Your task to perform on an android device: open device folders in google photos Image 0: 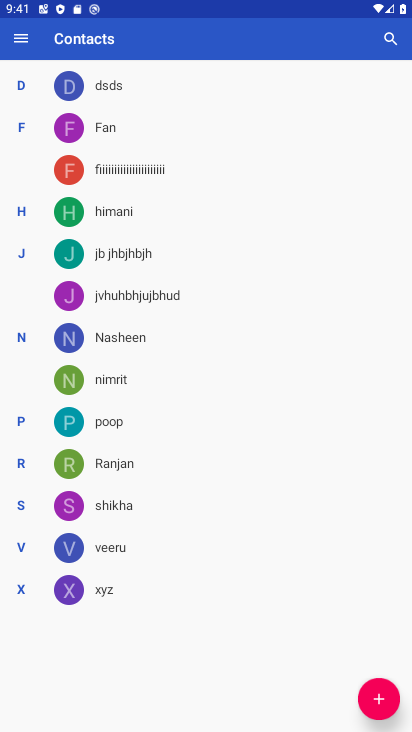
Step 0: press back button
Your task to perform on an android device: open device folders in google photos Image 1: 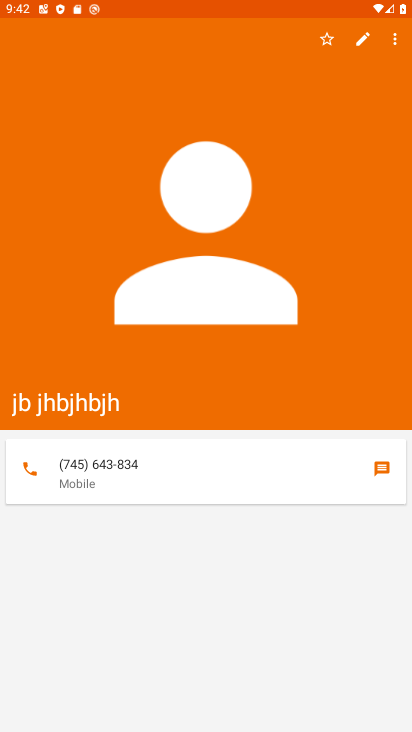
Step 1: press home button
Your task to perform on an android device: open device folders in google photos Image 2: 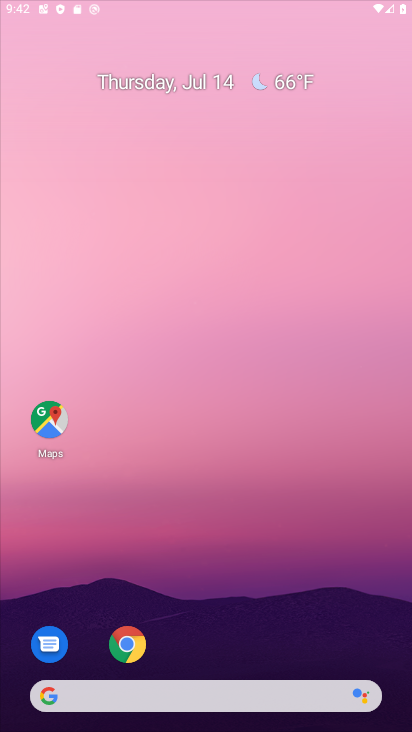
Step 2: press back button
Your task to perform on an android device: open device folders in google photos Image 3: 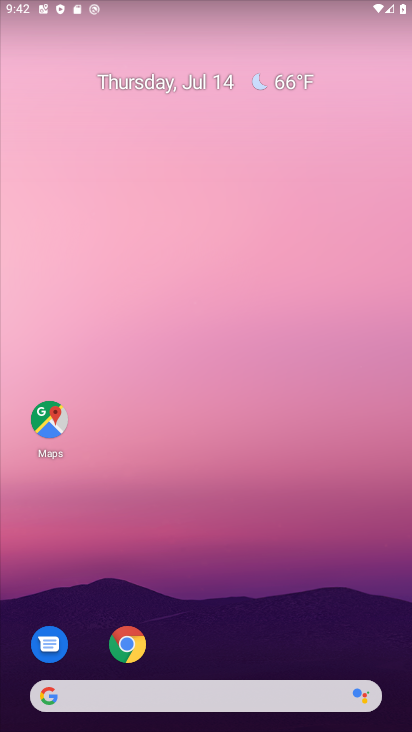
Step 3: drag from (238, 656) to (148, 72)
Your task to perform on an android device: open device folders in google photos Image 4: 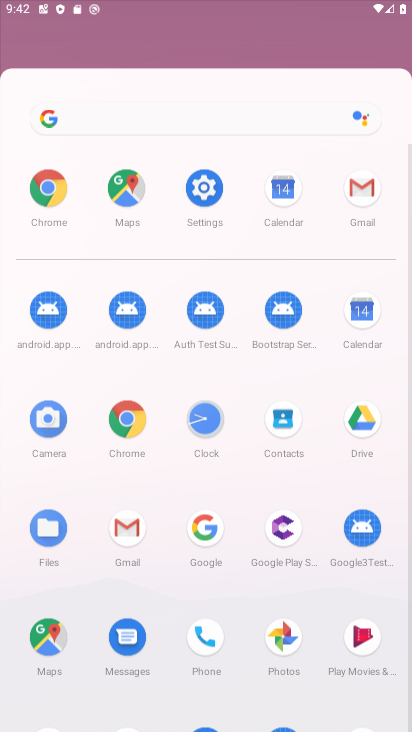
Step 4: drag from (217, 465) to (183, 185)
Your task to perform on an android device: open device folders in google photos Image 5: 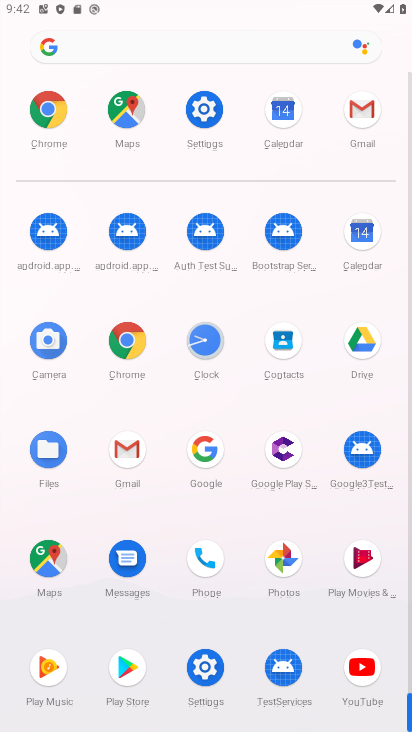
Step 5: click (271, 560)
Your task to perform on an android device: open device folders in google photos Image 6: 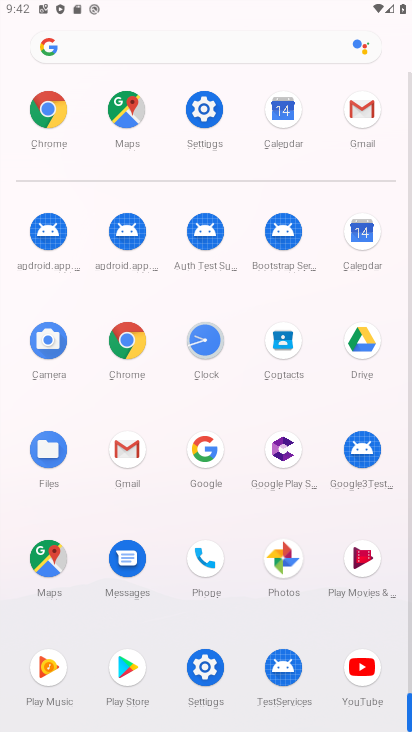
Step 6: click (274, 543)
Your task to perform on an android device: open device folders in google photos Image 7: 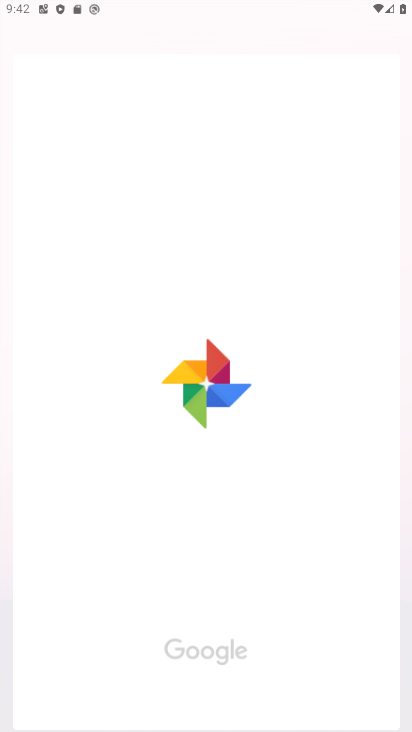
Step 7: click (281, 561)
Your task to perform on an android device: open device folders in google photos Image 8: 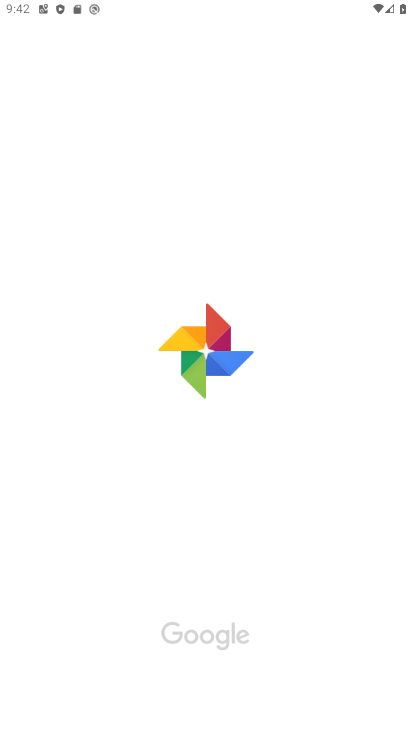
Step 8: click (283, 561)
Your task to perform on an android device: open device folders in google photos Image 9: 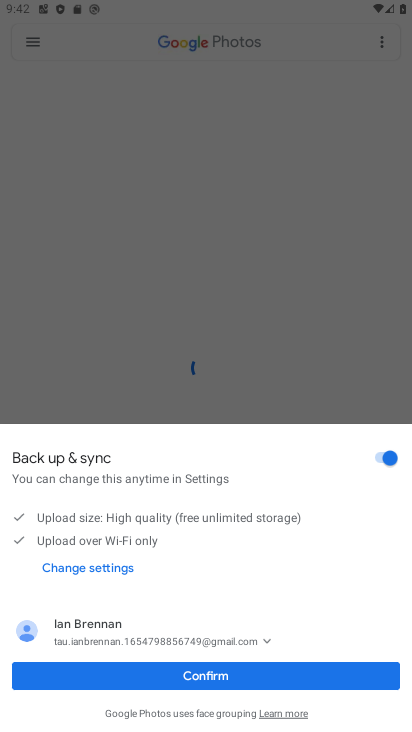
Step 9: click (216, 675)
Your task to perform on an android device: open device folders in google photos Image 10: 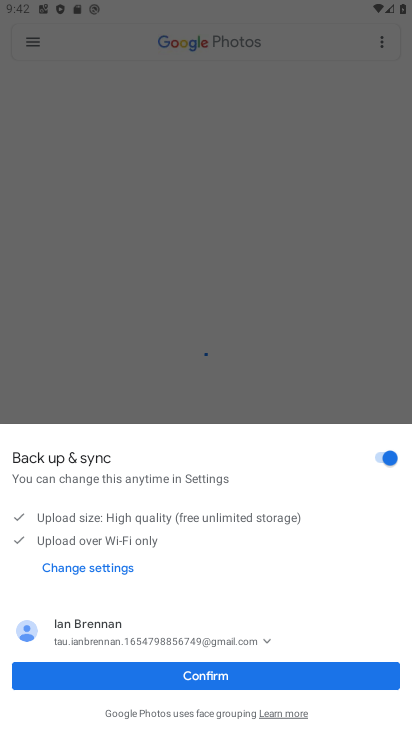
Step 10: click (214, 676)
Your task to perform on an android device: open device folders in google photos Image 11: 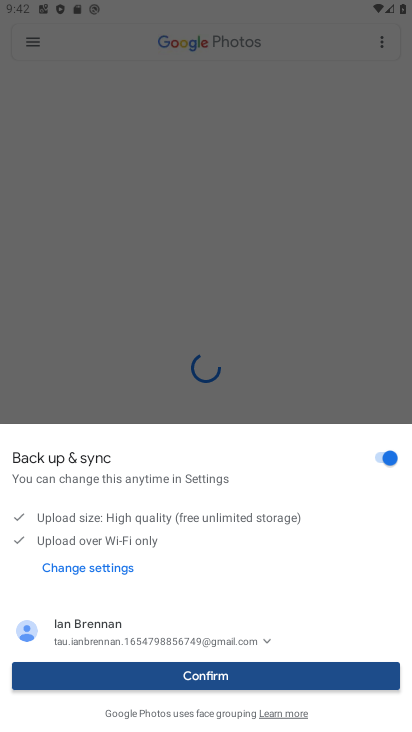
Step 11: click (215, 676)
Your task to perform on an android device: open device folders in google photos Image 12: 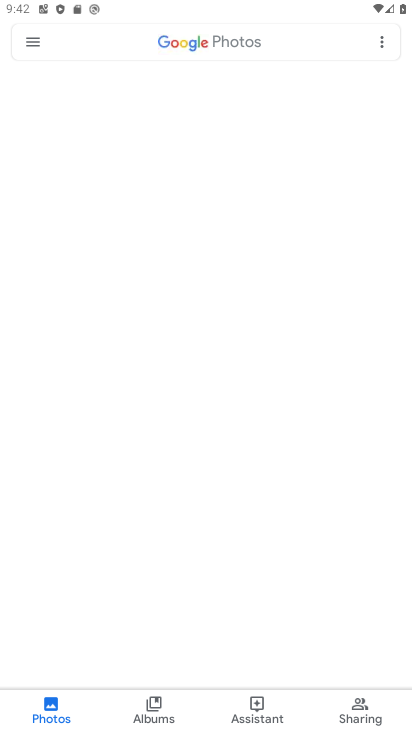
Step 12: click (233, 679)
Your task to perform on an android device: open device folders in google photos Image 13: 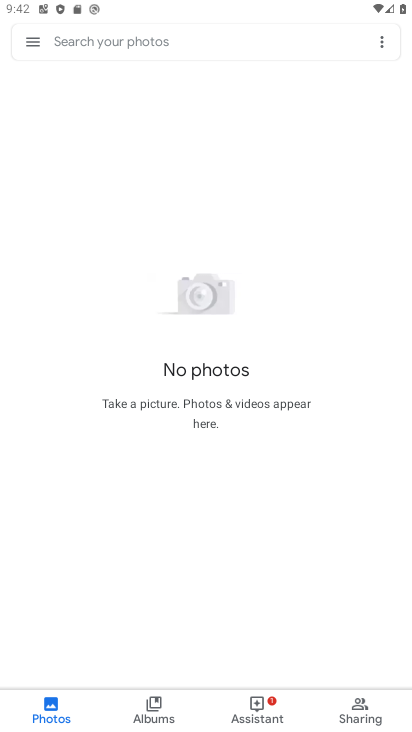
Step 13: click (27, 34)
Your task to perform on an android device: open device folders in google photos Image 14: 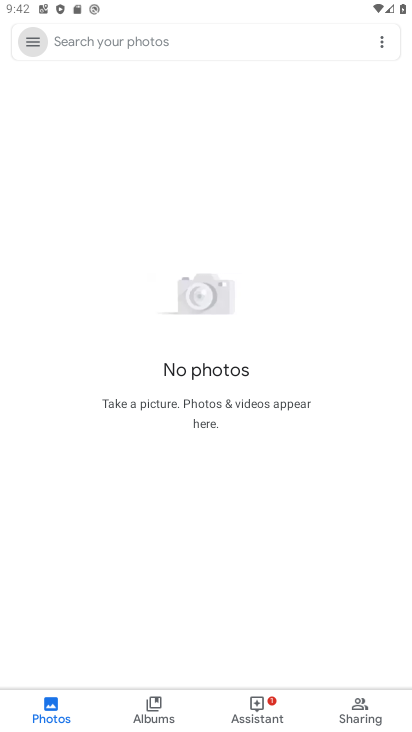
Step 14: click (32, 44)
Your task to perform on an android device: open device folders in google photos Image 15: 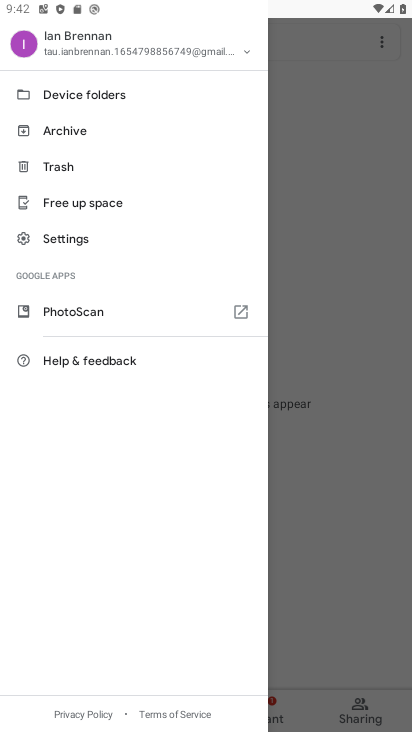
Step 15: drag from (33, 45) to (397, 149)
Your task to perform on an android device: open device folders in google photos Image 16: 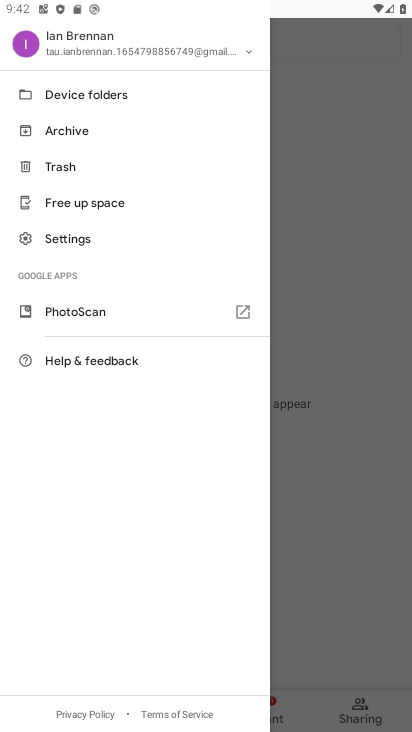
Step 16: click (72, 92)
Your task to perform on an android device: open device folders in google photos Image 17: 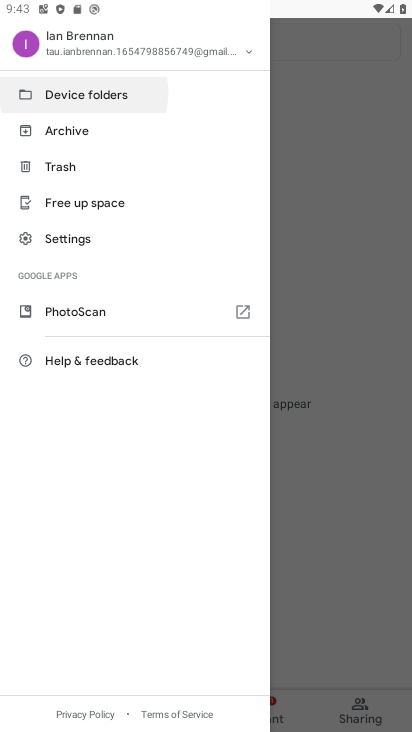
Step 17: click (72, 92)
Your task to perform on an android device: open device folders in google photos Image 18: 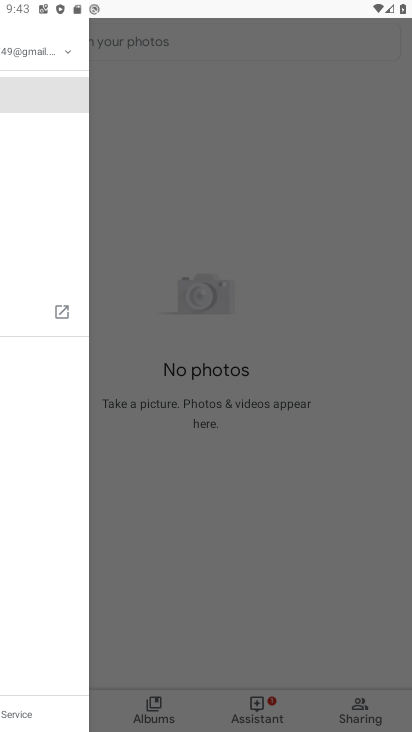
Step 18: click (72, 92)
Your task to perform on an android device: open device folders in google photos Image 19: 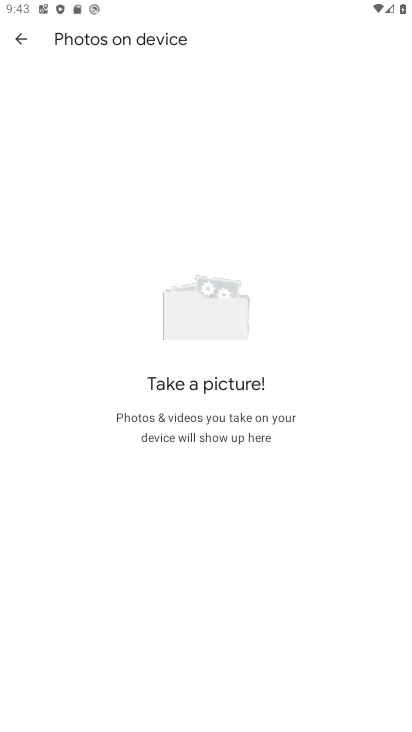
Step 19: task complete